Your task to perform on an android device: Open settings on Google Maps Image 0: 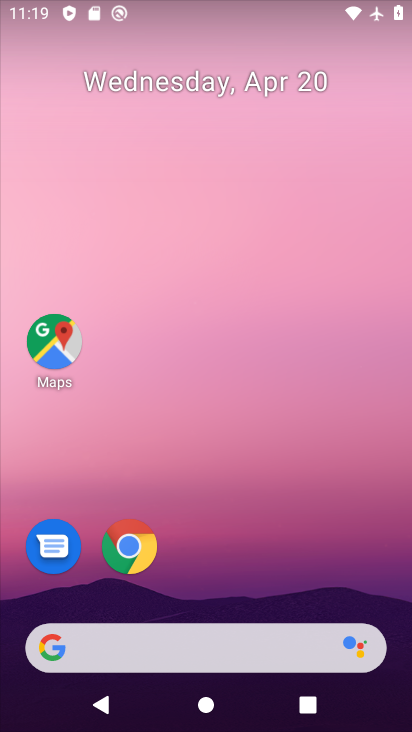
Step 0: drag from (187, 640) to (361, 88)
Your task to perform on an android device: Open settings on Google Maps Image 1: 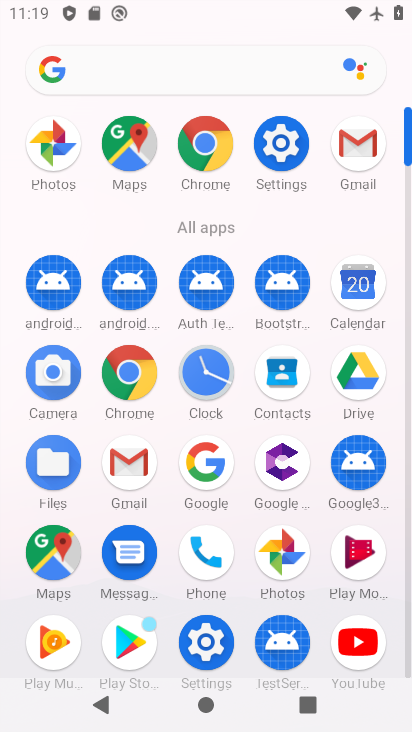
Step 1: click (129, 161)
Your task to perform on an android device: Open settings on Google Maps Image 2: 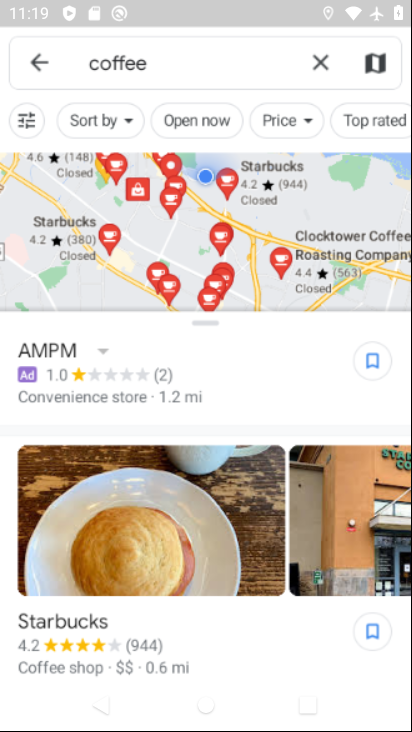
Step 2: click (34, 63)
Your task to perform on an android device: Open settings on Google Maps Image 3: 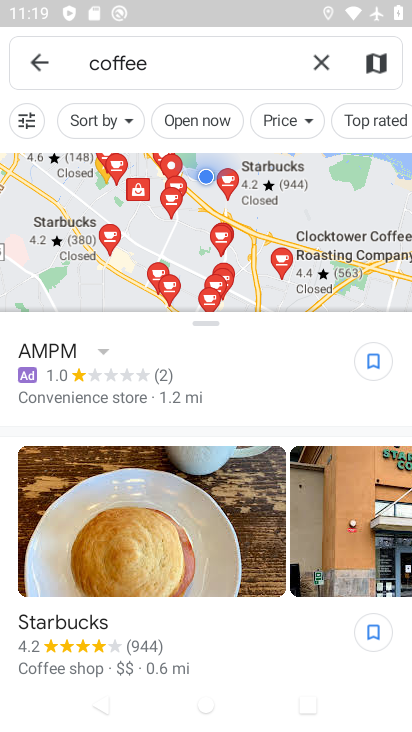
Step 3: click (42, 62)
Your task to perform on an android device: Open settings on Google Maps Image 4: 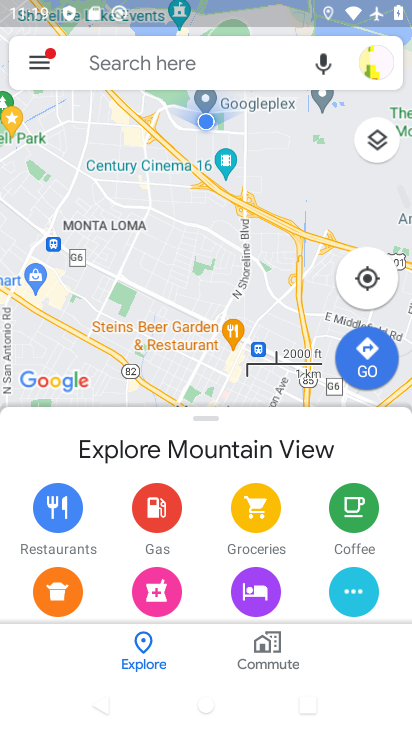
Step 4: click (43, 58)
Your task to perform on an android device: Open settings on Google Maps Image 5: 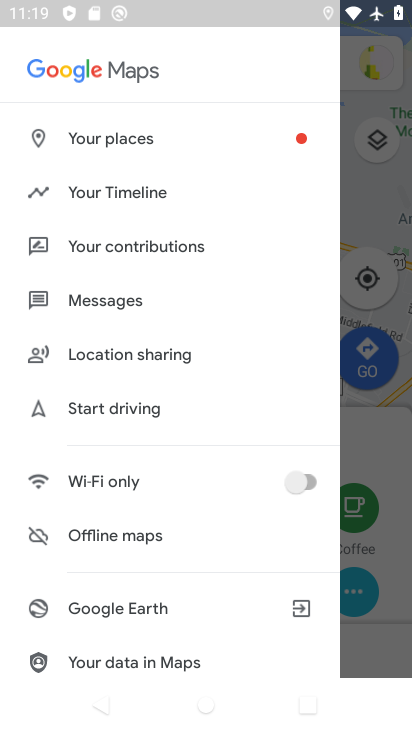
Step 5: drag from (176, 602) to (270, 204)
Your task to perform on an android device: Open settings on Google Maps Image 6: 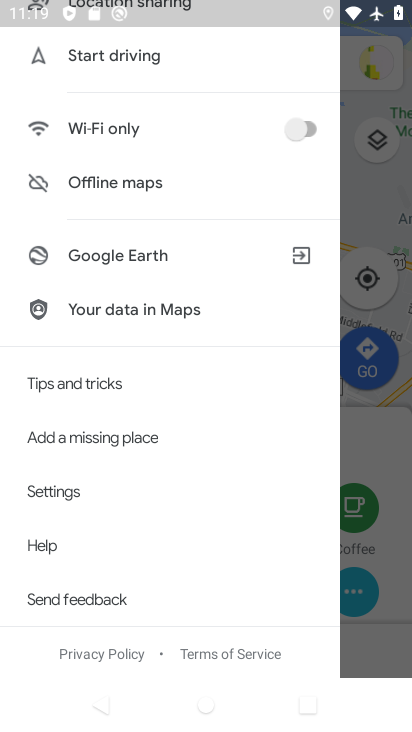
Step 6: drag from (123, 604) to (212, 196)
Your task to perform on an android device: Open settings on Google Maps Image 7: 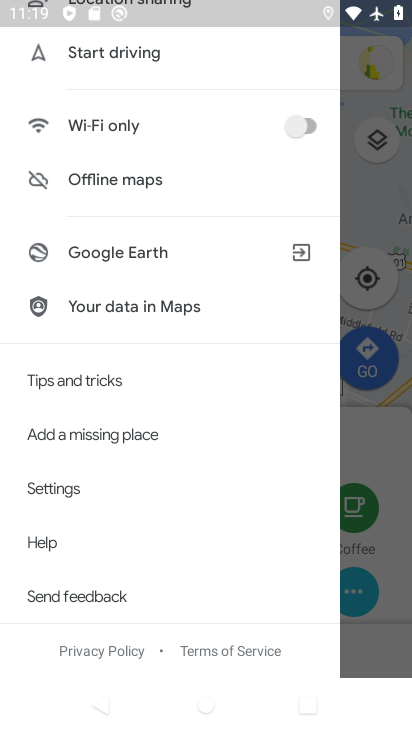
Step 7: click (59, 487)
Your task to perform on an android device: Open settings on Google Maps Image 8: 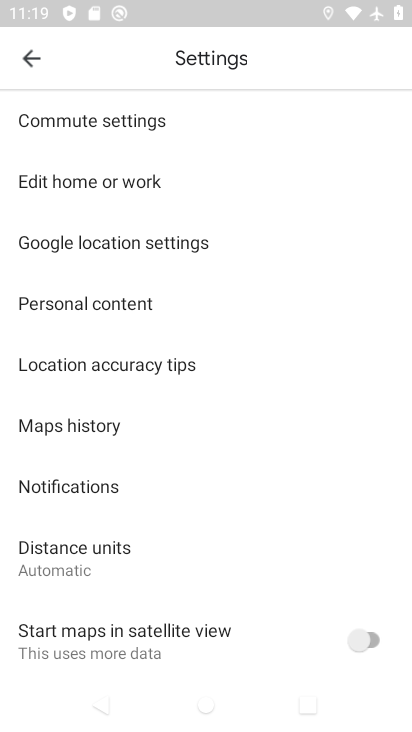
Step 8: task complete